Your task to perform on an android device: check data usage Image 0: 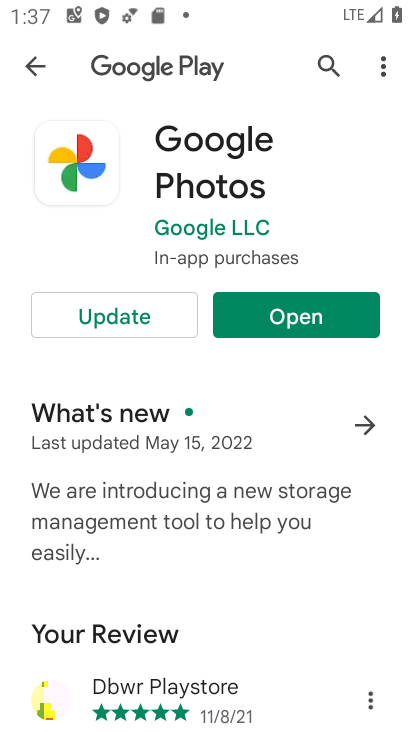
Step 0: press home button
Your task to perform on an android device: check data usage Image 1: 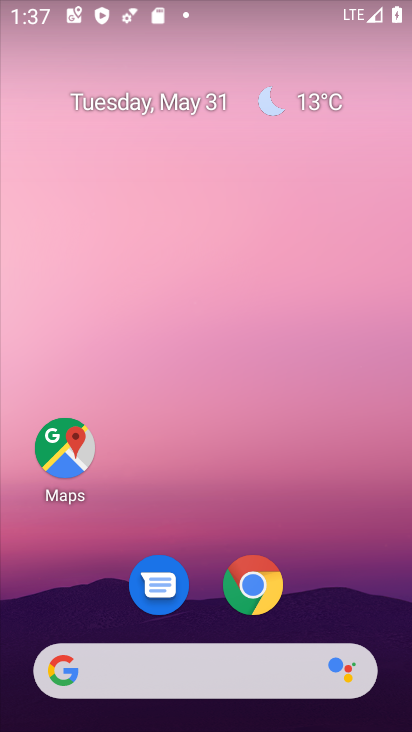
Step 1: drag from (185, 497) to (211, 67)
Your task to perform on an android device: check data usage Image 2: 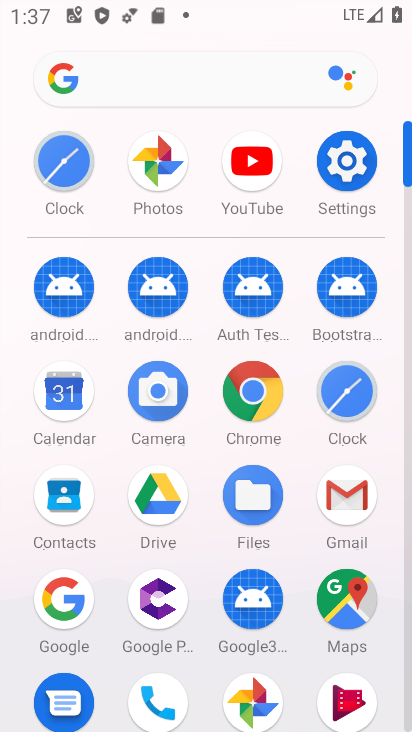
Step 2: click (351, 154)
Your task to perform on an android device: check data usage Image 3: 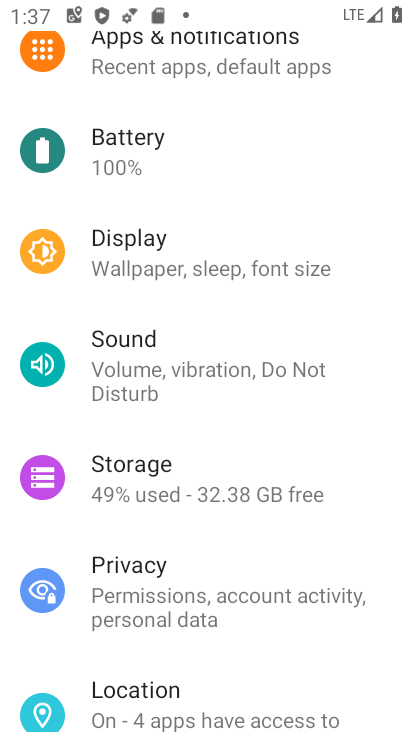
Step 3: drag from (258, 164) to (226, 616)
Your task to perform on an android device: check data usage Image 4: 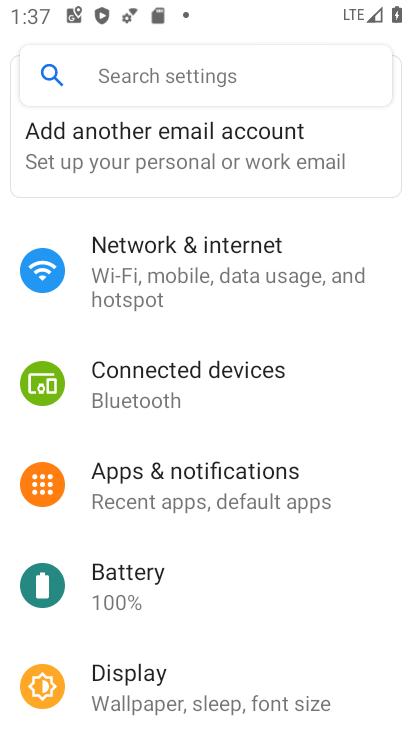
Step 4: click (259, 262)
Your task to perform on an android device: check data usage Image 5: 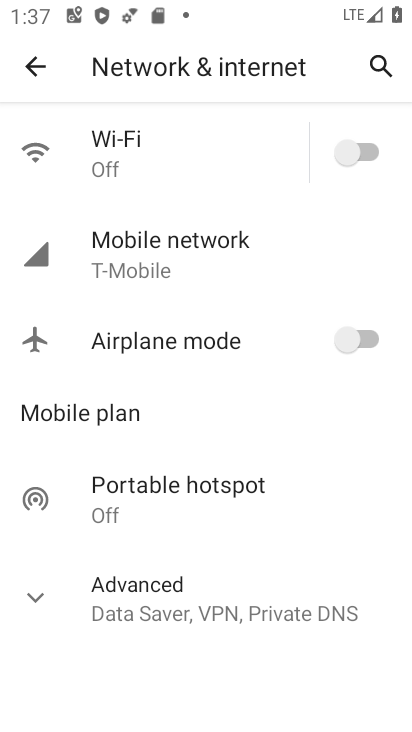
Step 5: click (259, 269)
Your task to perform on an android device: check data usage Image 6: 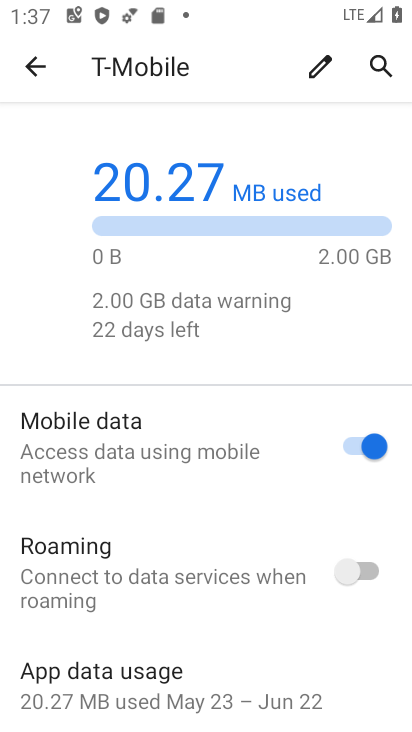
Step 6: task complete